Your task to perform on an android device: Search for Mexican restaurants on Maps Image 0: 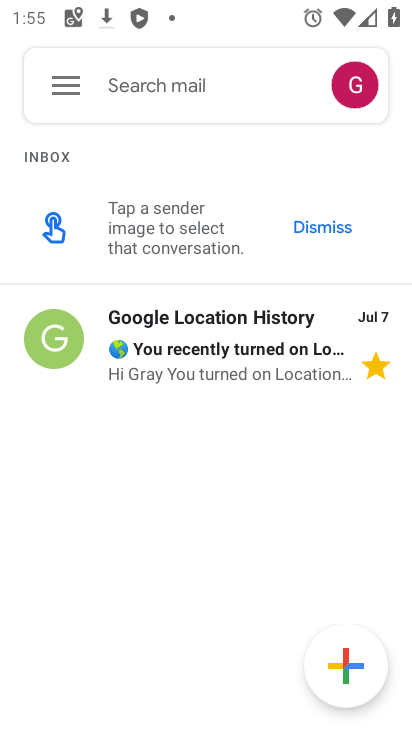
Step 0: press home button
Your task to perform on an android device: Search for Mexican restaurants on Maps Image 1: 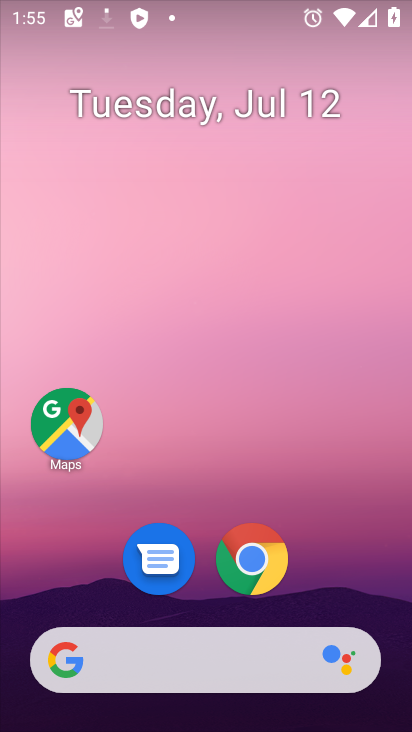
Step 1: drag from (344, 566) to (317, 150)
Your task to perform on an android device: Search for Mexican restaurants on Maps Image 2: 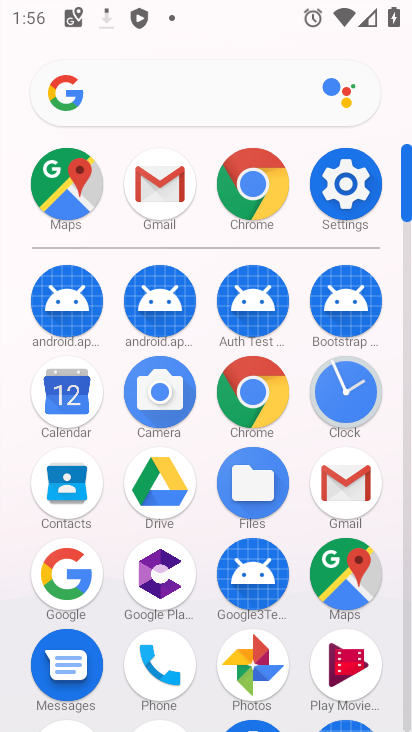
Step 2: click (349, 491)
Your task to perform on an android device: Search for Mexican restaurants on Maps Image 3: 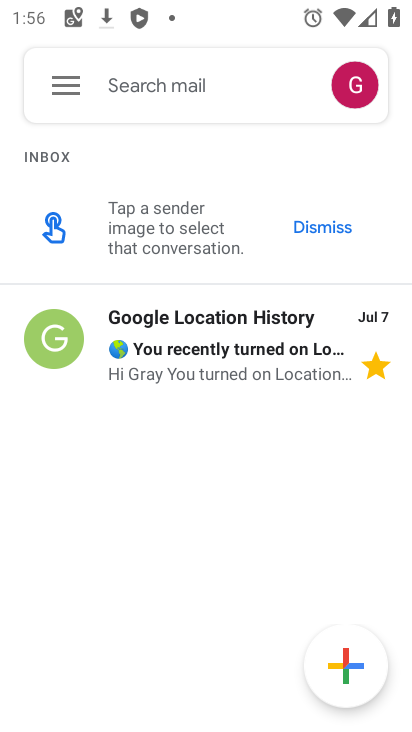
Step 3: press back button
Your task to perform on an android device: Search for Mexican restaurants on Maps Image 4: 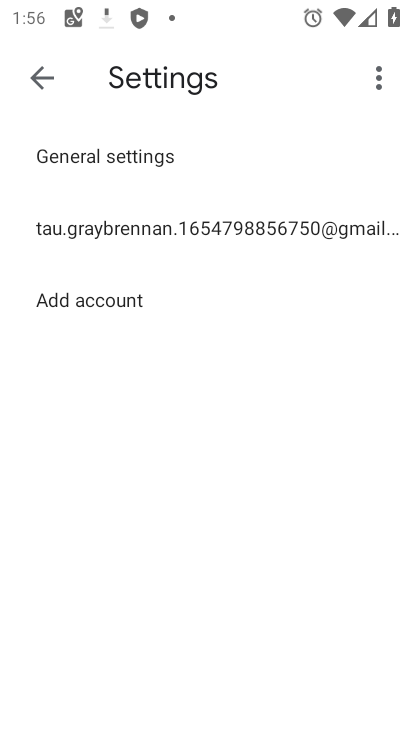
Step 4: press home button
Your task to perform on an android device: Search for Mexican restaurants on Maps Image 5: 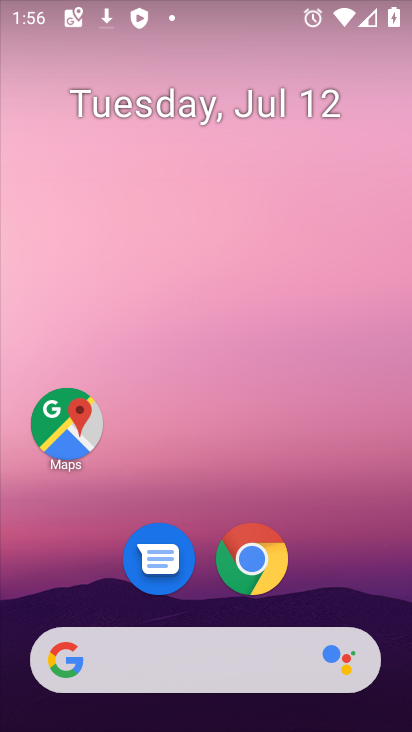
Step 5: drag from (359, 578) to (387, 215)
Your task to perform on an android device: Search for Mexican restaurants on Maps Image 6: 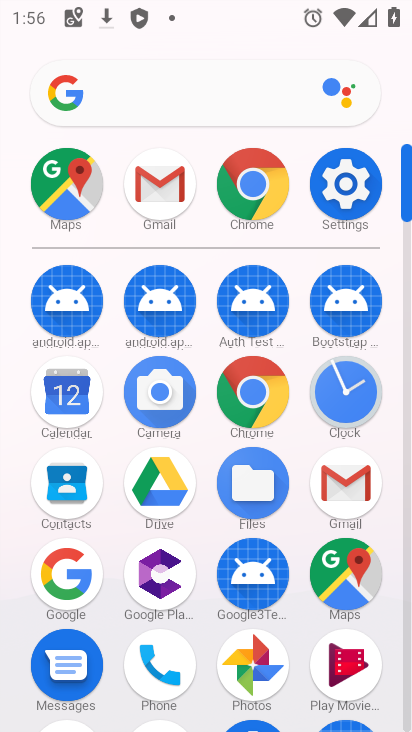
Step 6: click (358, 566)
Your task to perform on an android device: Search for Mexican restaurants on Maps Image 7: 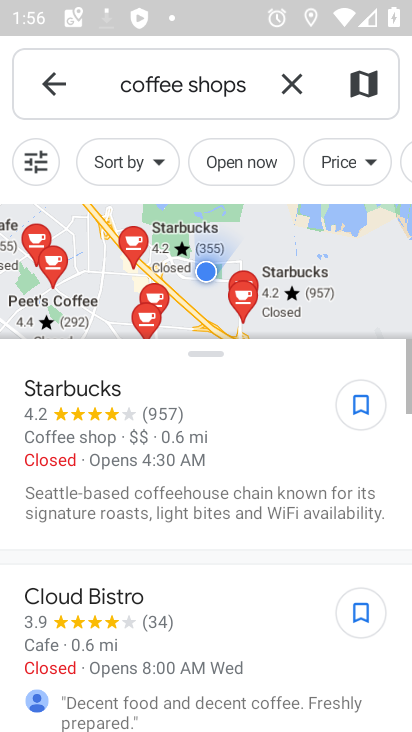
Step 7: press back button
Your task to perform on an android device: Search for Mexican restaurants on Maps Image 8: 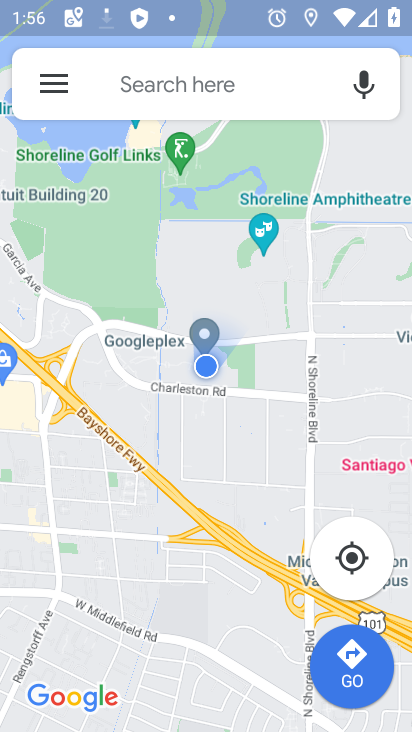
Step 8: click (252, 103)
Your task to perform on an android device: Search for Mexican restaurants on Maps Image 9: 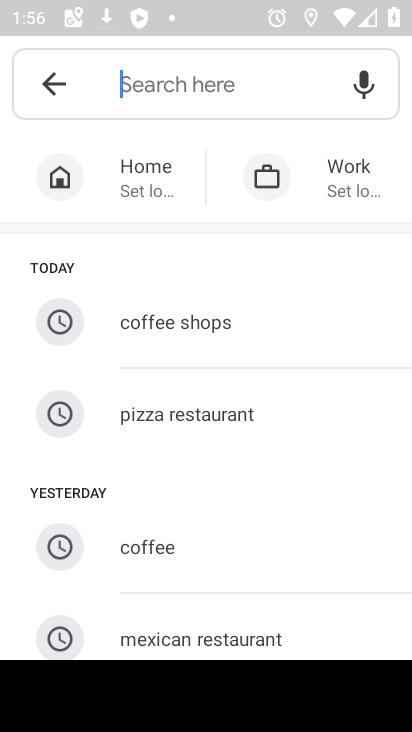
Step 9: type "mexcian restaurants"
Your task to perform on an android device: Search for Mexican restaurants on Maps Image 10: 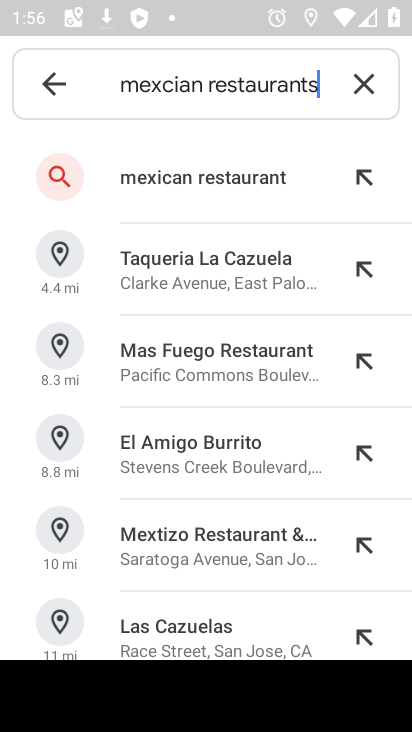
Step 10: click (316, 205)
Your task to perform on an android device: Search for Mexican restaurants on Maps Image 11: 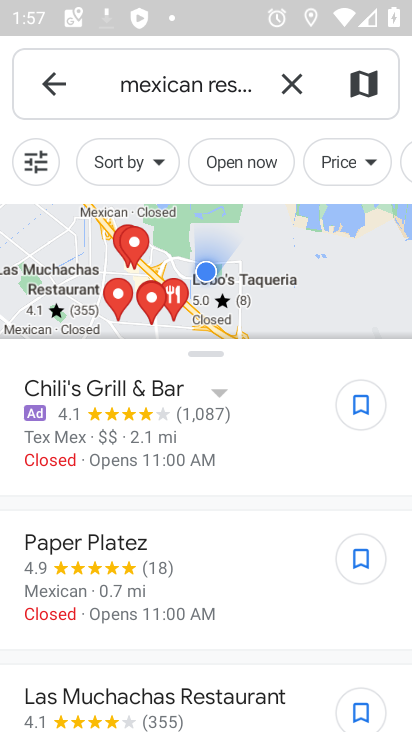
Step 11: task complete